Your task to perform on an android device: turn on notifications settings in the gmail app Image 0: 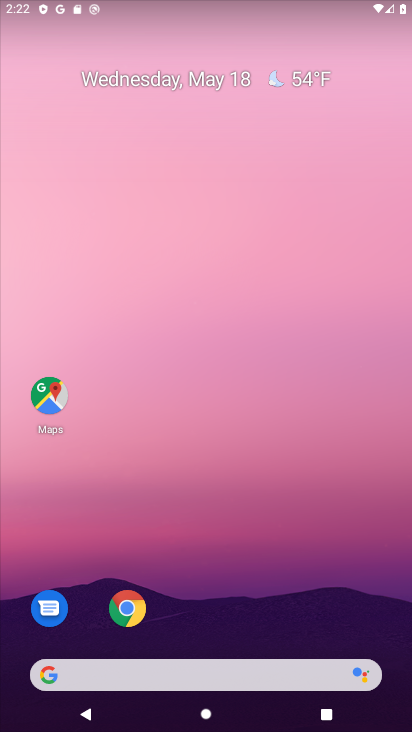
Step 0: drag from (313, 641) to (322, 17)
Your task to perform on an android device: turn on notifications settings in the gmail app Image 1: 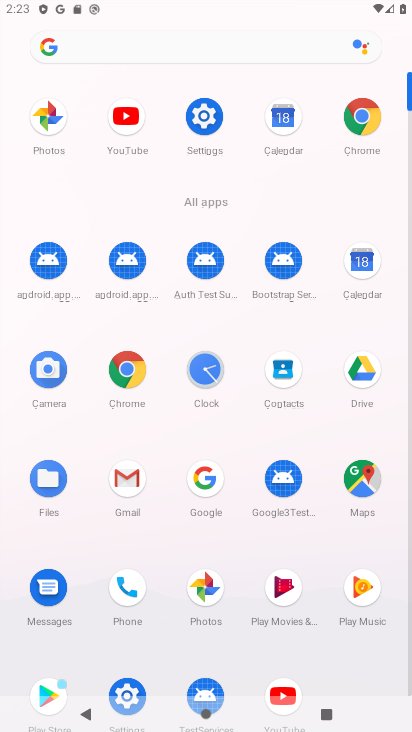
Step 1: click (131, 485)
Your task to perform on an android device: turn on notifications settings in the gmail app Image 2: 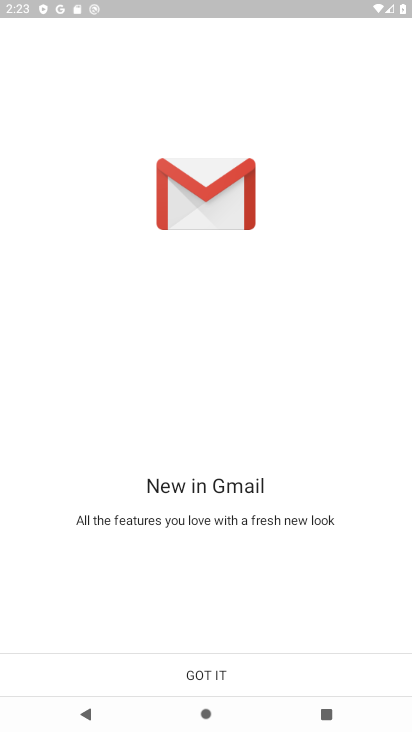
Step 2: click (216, 665)
Your task to perform on an android device: turn on notifications settings in the gmail app Image 3: 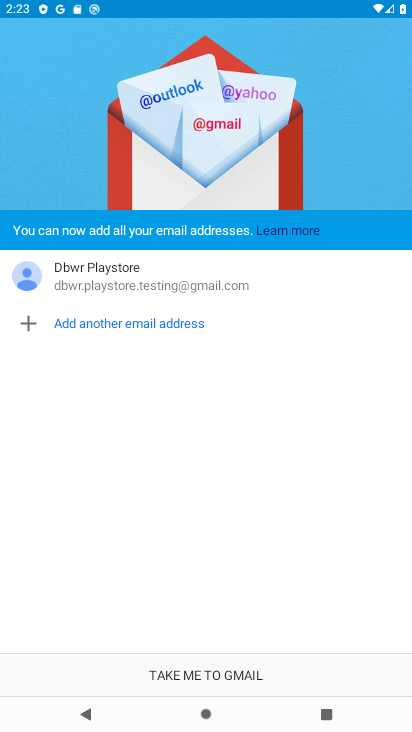
Step 3: click (216, 665)
Your task to perform on an android device: turn on notifications settings in the gmail app Image 4: 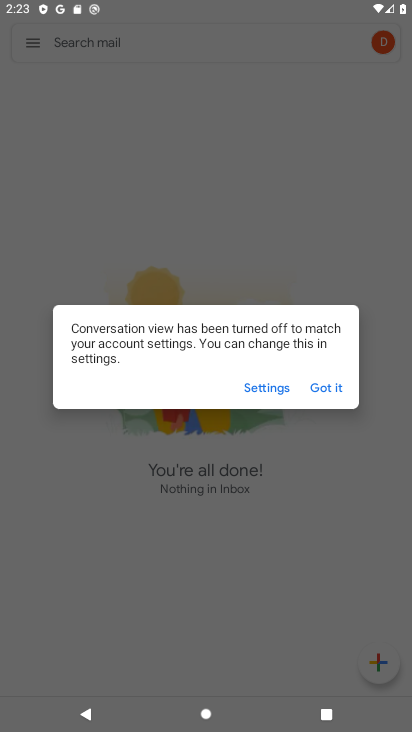
Step 4: click (325, 390)
Your task to perform on an android device: turn on notifications settings in the gmail app Image 5: 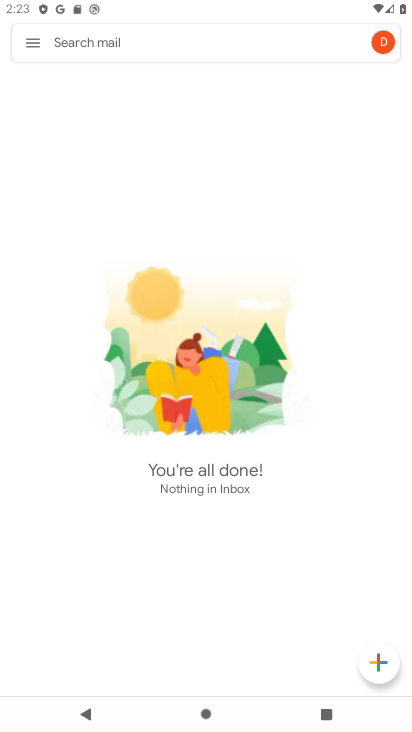
Step 5: click (29, 45)
Your task to perform on an android device: turn on notifications settings in the gmail app Image 6: 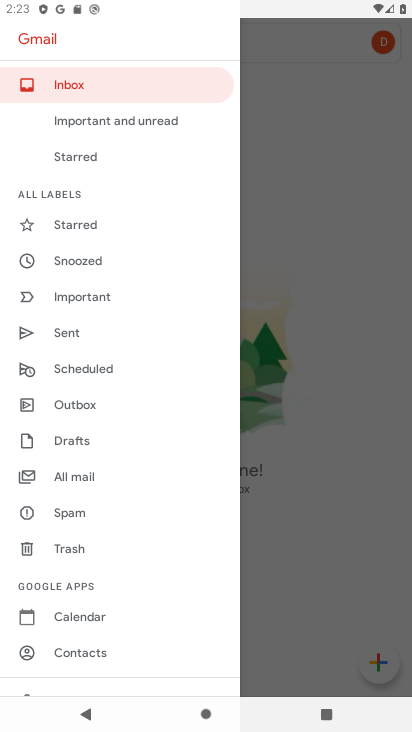
Step 6: drag from (172, 645) to (169, 430)
Your task to perform on an android device: turn on notifications settings in the gmail app Image 7: 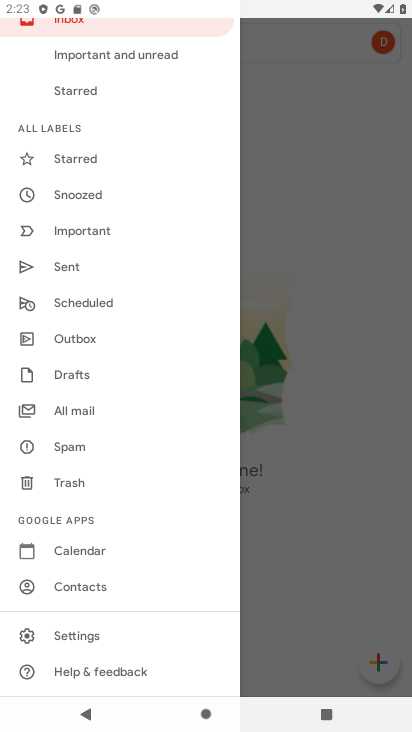
Step 7: click (92, 637)
Your task to perform on an android device: turn on notifications settings in the gmail app Image 8: 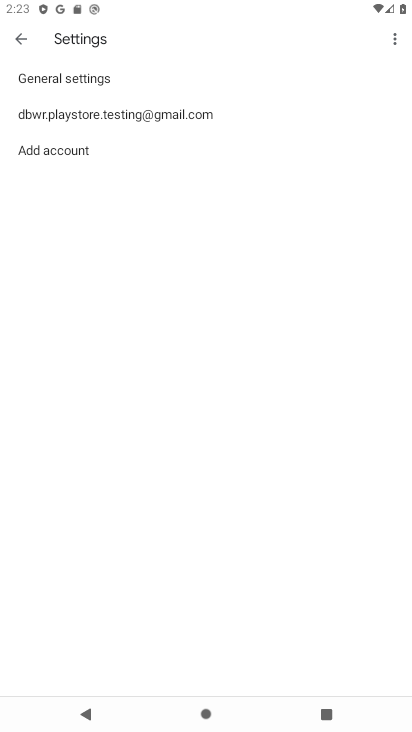
Step 8: click (49, 79)
Your task to perform on an android device: turn on notifications settings in the gmail app Image 9: 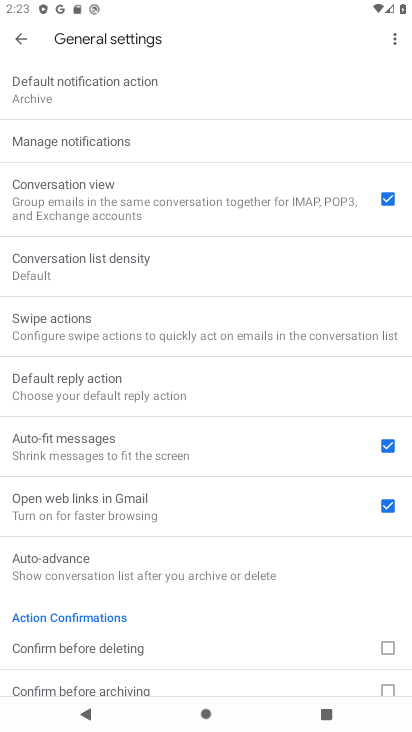
Step 9: click (48, 137)
Your task to perform on an android device: turn on notifications settings in the gmail app Image 10: 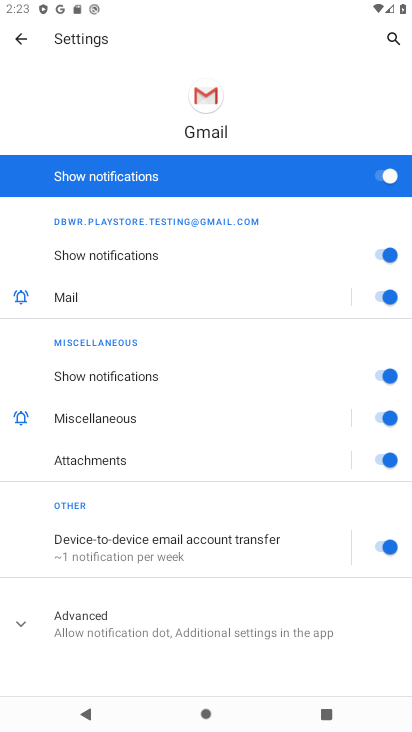
Step 10: task complete